Your task to perform on an android device: turn on data saver in the chrome app Image 0: 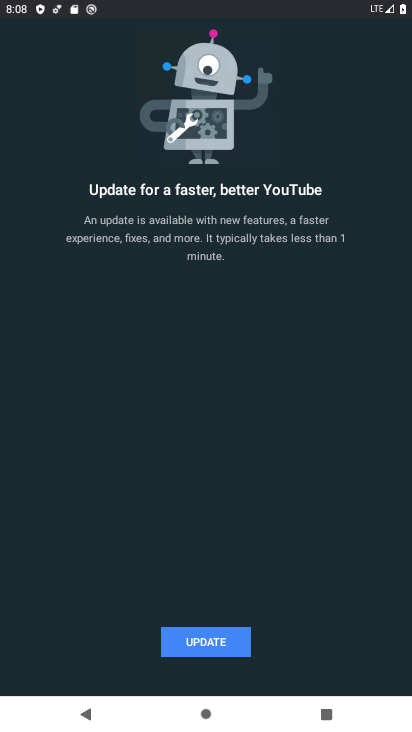
Step 0: press home button
Your task to perform on an android device: turn on data saver in the chrome app Image 1: 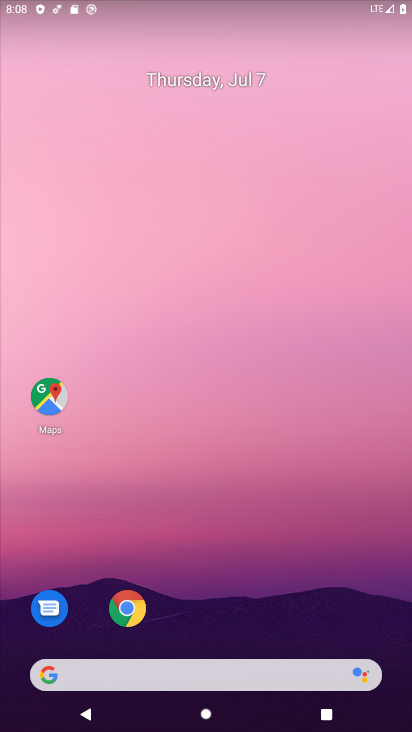
Step 1: drag from (364, 613) to (383, 27)
Your task to perform on an android device: turn on data saver in the chrome app Image 2: 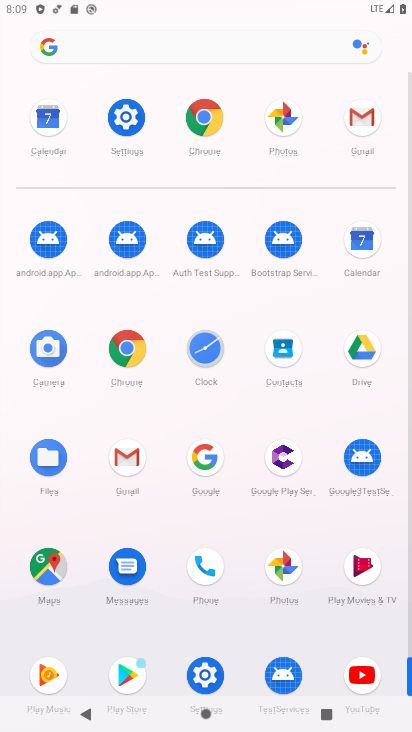
Step 2: click (139, 352)
Your task to perform on an android device: turn on data saver in the chrome app Image 3: 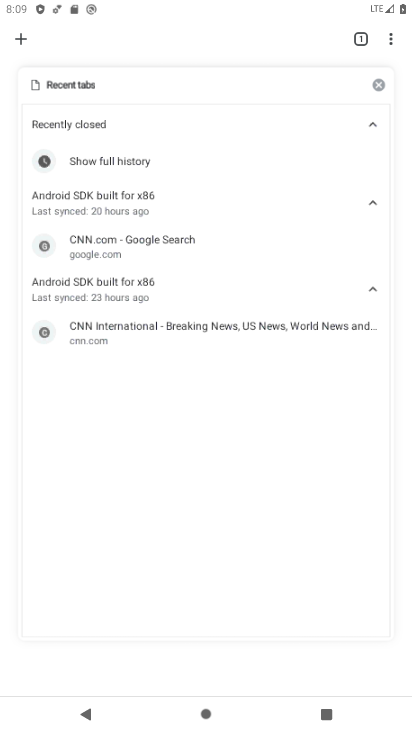
Step 3: click (389, 41)
Your task to perform on an android device: turn on data saver in the chrome app Image 4: 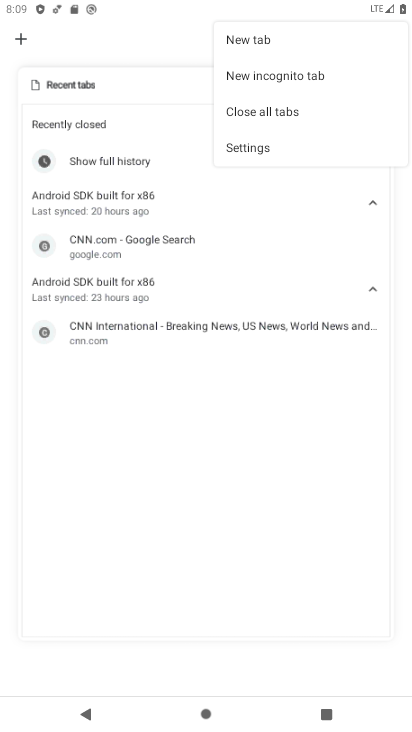
Step 4: click (277, 142)
Your task to perform on an android device: turn on data saver in the chrome app Image 5: 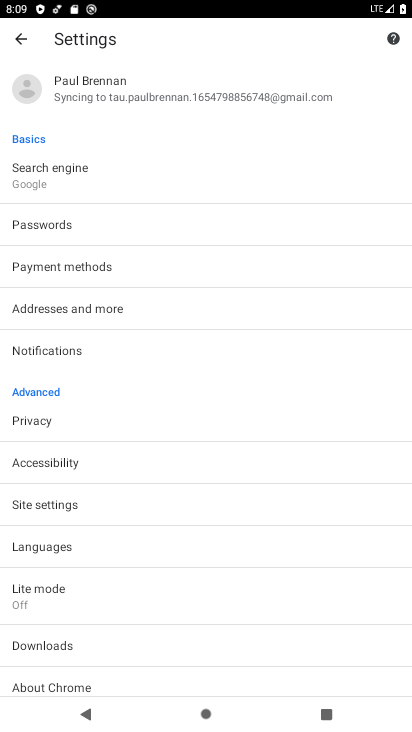
Step 5: drag from (269, 473) to (285, 379)
Your task to perform on an android device: turn on data saver in the chrome app Image 6: 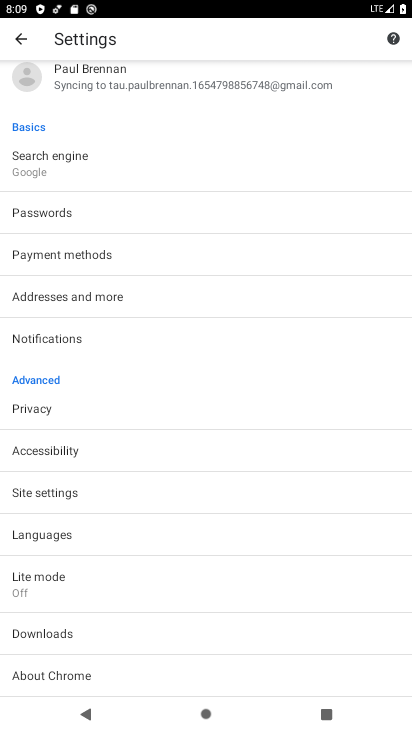
Step 6: click (218, 592)
Your task to perform on an android device: turn on data saver in the chrome app Image 7: 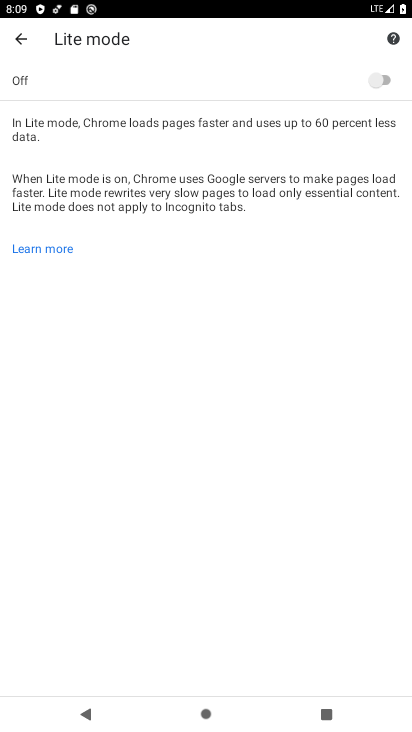
Step 7: click (378, 81)
Your task to perform on an android device: turn on data saver in the chrome app Image 8: 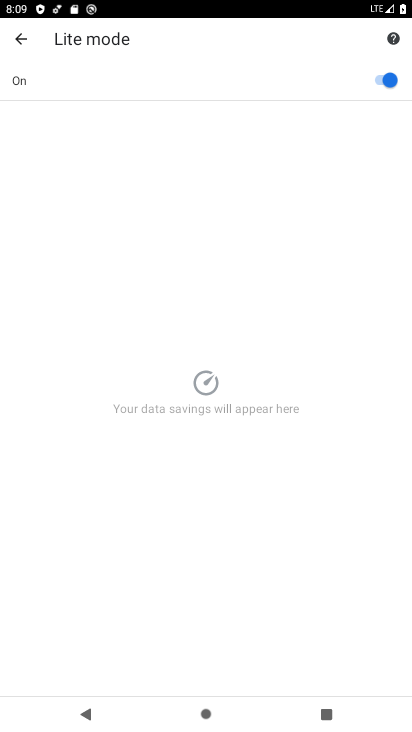
Step 8: task complete